Your task to perform on an android device: Open Chrome and go to settings Image 0: 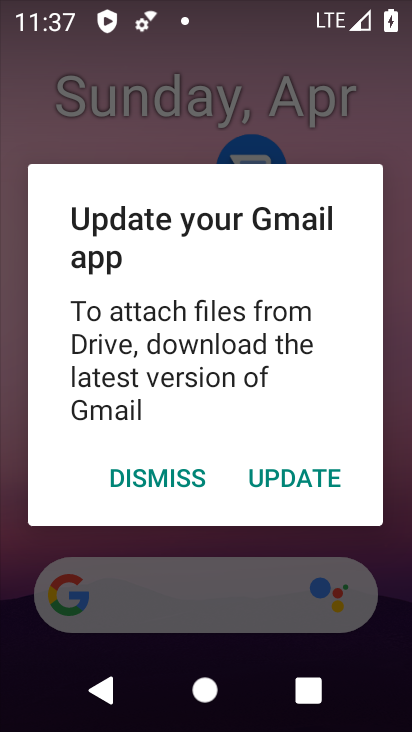
Step 0: press home button
Your task to perform on an android device: Open Chrome and go to settings Image 1: 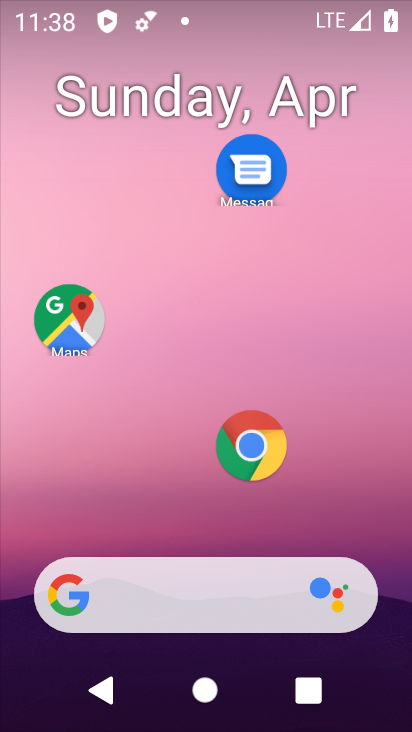
Step 1: click (247, 459)
Your task to perform on an android device: Open Chrome and go to settings Image 2: 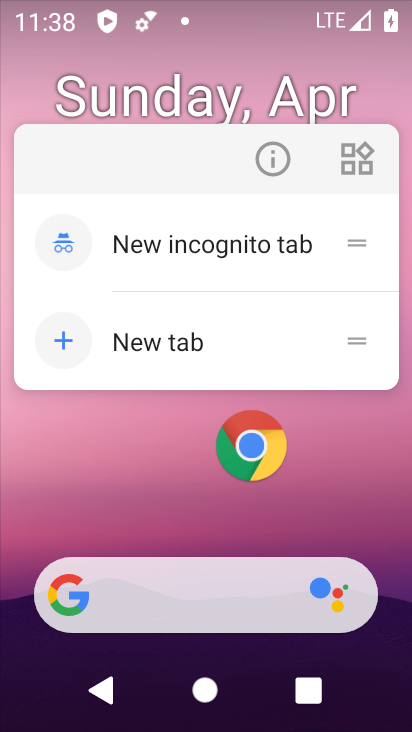
Step 2: click (258, 461)
Your task to perform on an android device: Open Chrome and go to settings Image 3: 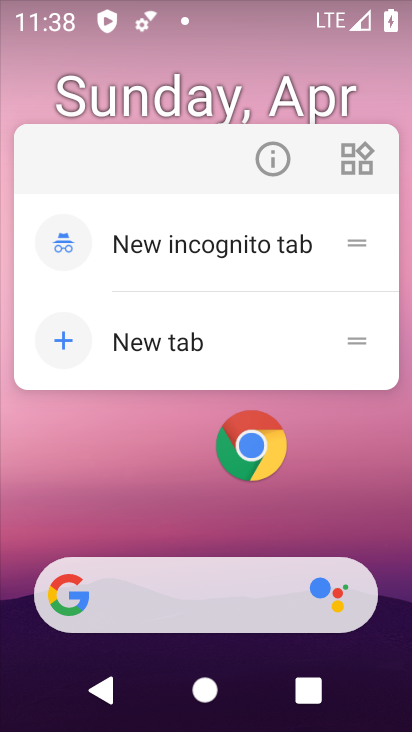
Step 3: click (255, 447)
Your task to perform on an android device: Open Chrome and go to settings Image 4: 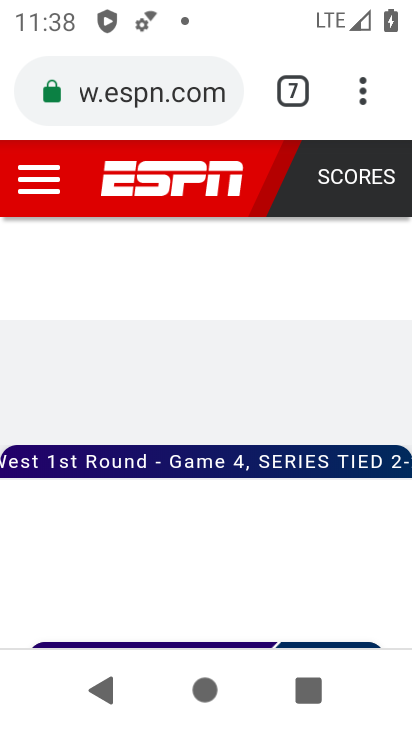
Step 4: drag from (365, 96) to (155, 477)
Your task to perform on an android device: Open Chrome and go to settings Image 5: 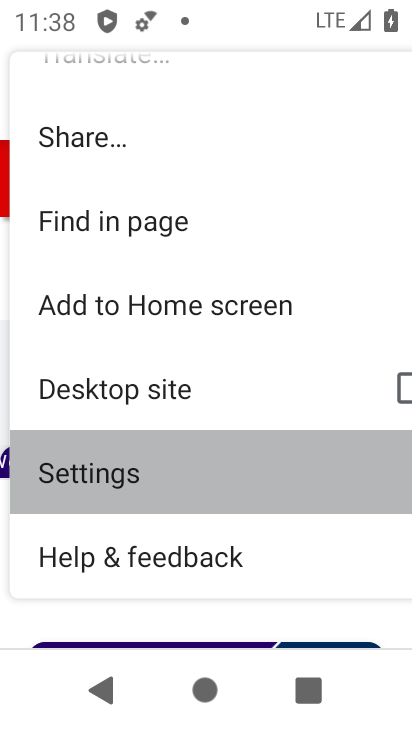
Step 5: click (154, 472)
Your task to perform on an android device: Open Chrome and go to settings Image 6: 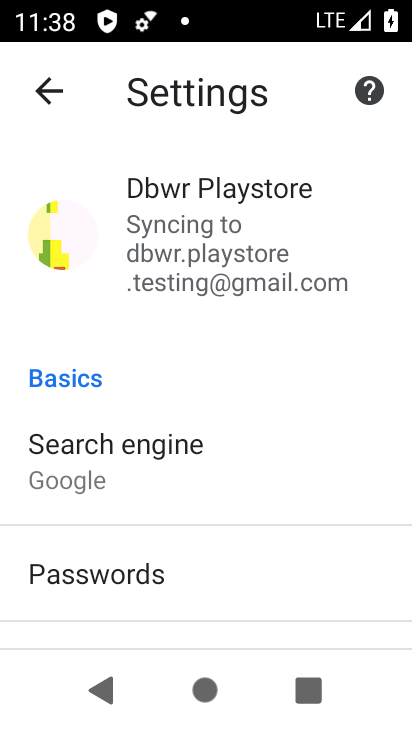
Step 6: task complete